Your task to perform on an android device: Toggle the flashlight Image 0: 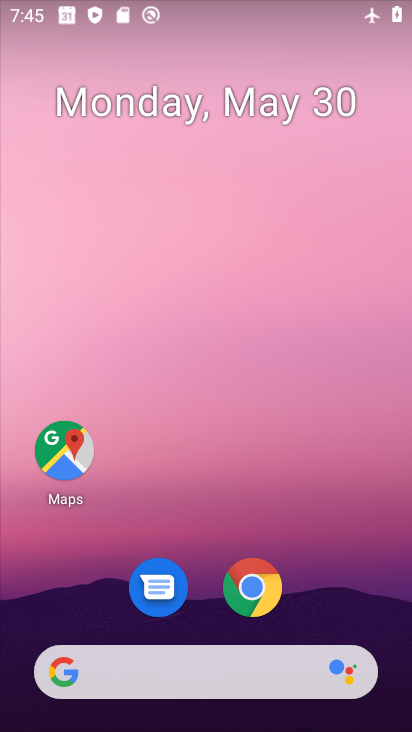
Step 0: drag from (334, 546) to (264, 25)
Your task to perform on an android device: Toggle the flashlight Image 1: 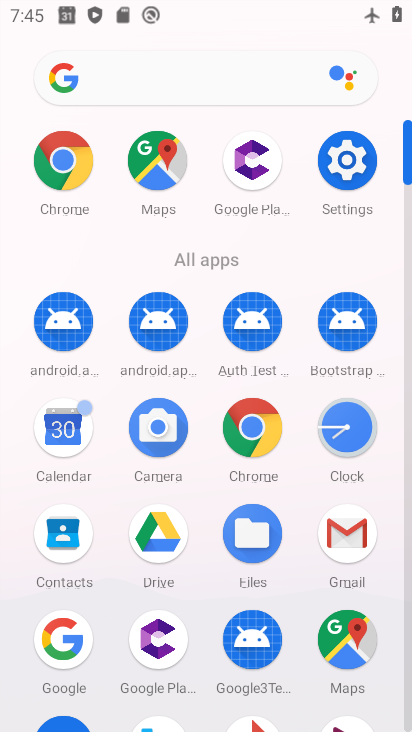
Step 1: drag from (14, 549) to (19, 230)
Your task to perform on an android device: Toggle the flashlight Image 2: 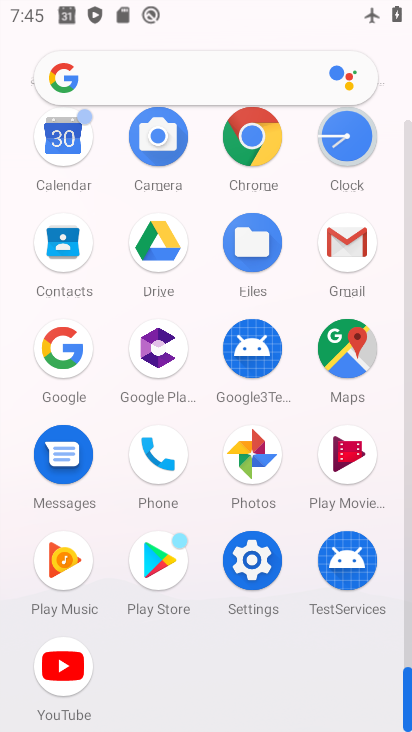
Step 2: click (252, 558)
Your task to perform on an android device: Toggle the flashlight Image 3: 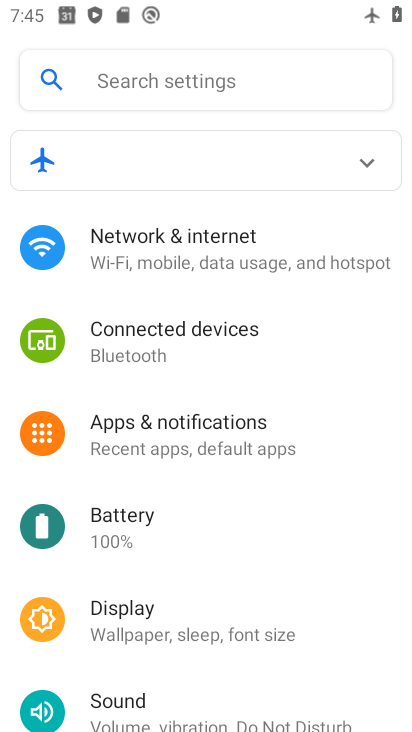
Step 3: click (289, 258)
Your task to perform on an android device: Toggle the flashlight Image 4: 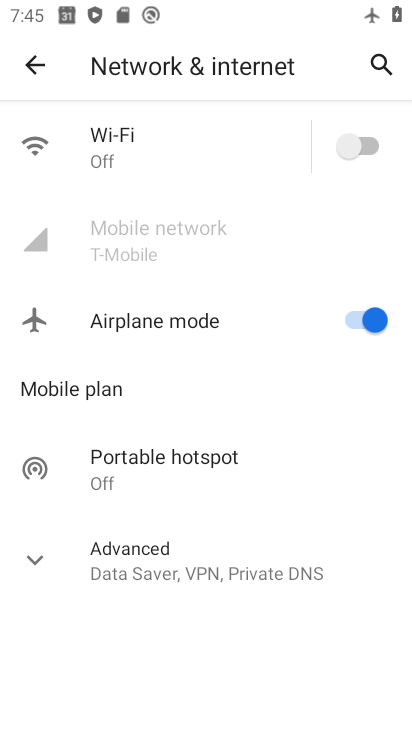
Step 4: click (64, 560)
Your task to perform on an android device: Toggle the flashlight Image 5: 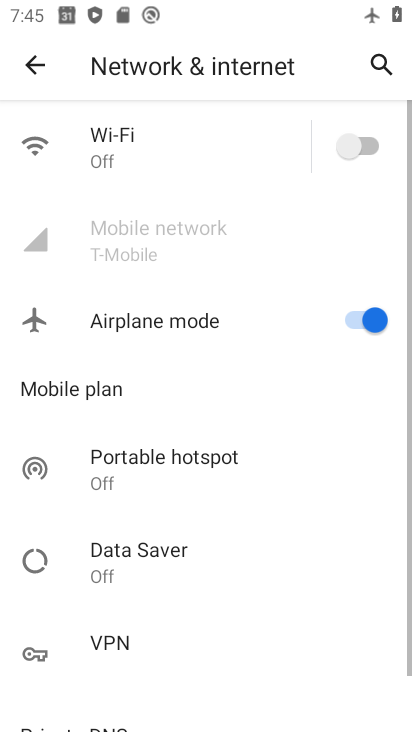
Step 5: task complete